Your task to perform on an android device: turn on improve location accuracy Image 0: 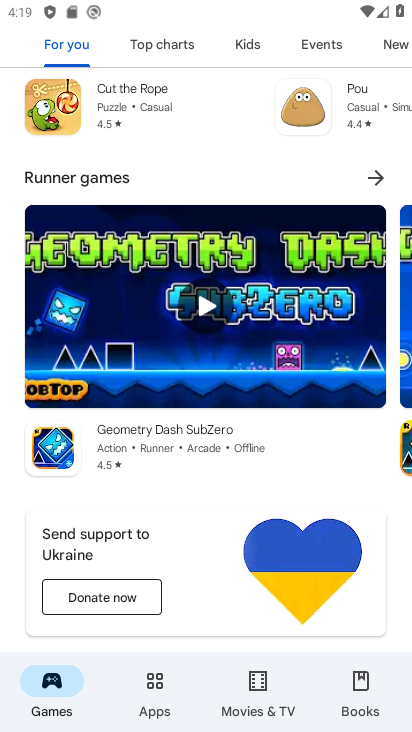
Step 0: press home button
Your task to perform on an android device: turn on improve location accuracy Image 1: 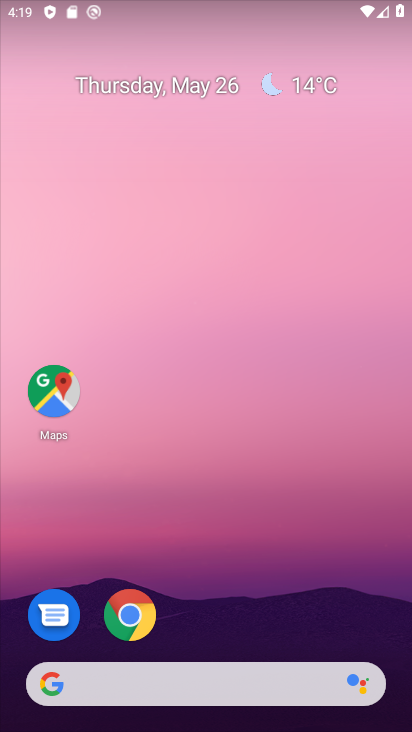
Step 1: drag from (324, 569) to (228, 131)
Your task to perform on an android device: turn on improve location accuracy Image 2: 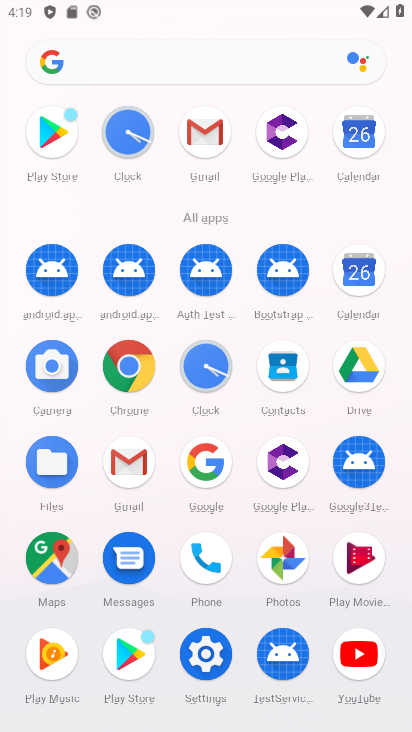
Step 2: click (207, 658)
Your task to perform on an android device: turn on improve location accuracy Image 3: 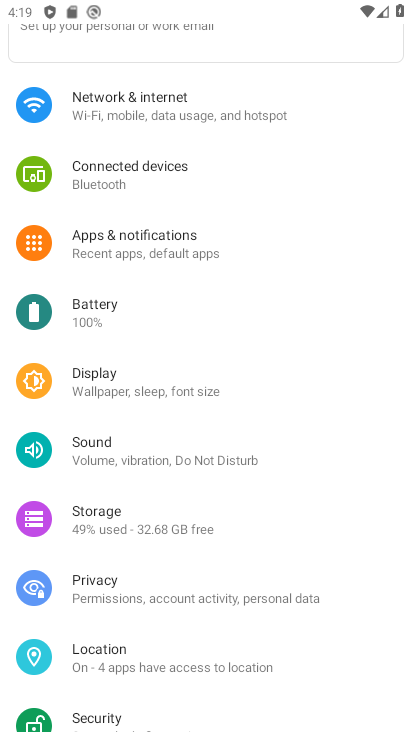
Step 3: drag from (191, 582) to (217, 258)
Your task to perform on an android device: turn on improve location accuracy Image 4: 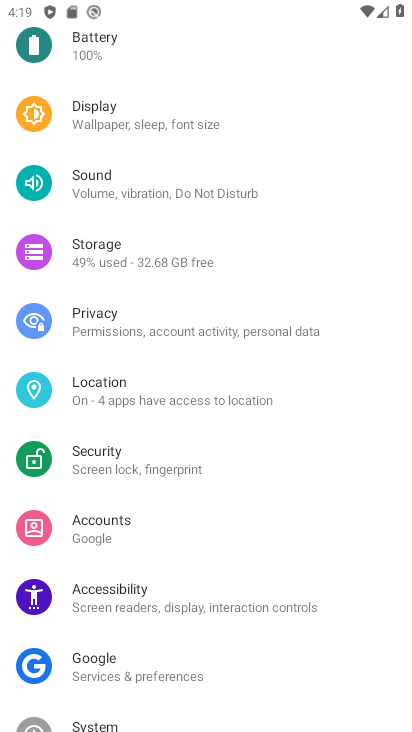
Step 4: click (134, 386)
Your task to perform on an android device: turn on improve location accuracy Image 5: 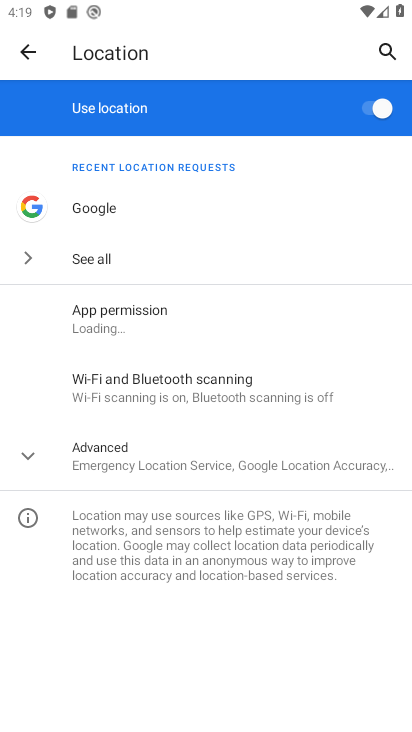
Step 5: click (129, 466)
Your task to perform on an android device: turn on improve location accuracy Image 6: 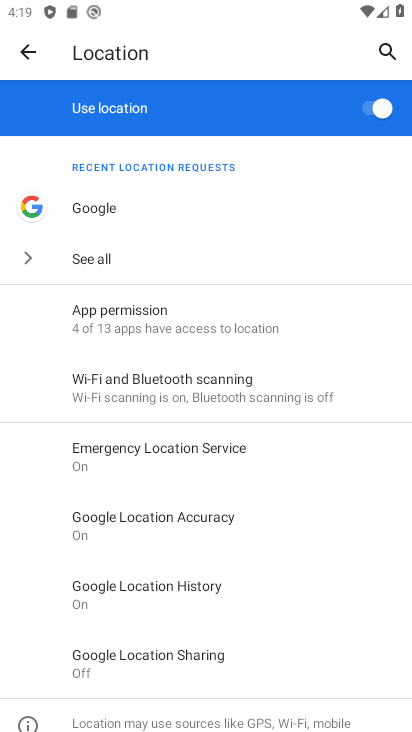
Step 6: click (191, 521)
Your task to perform on an android device: turn on improve location accuracy Image 7: 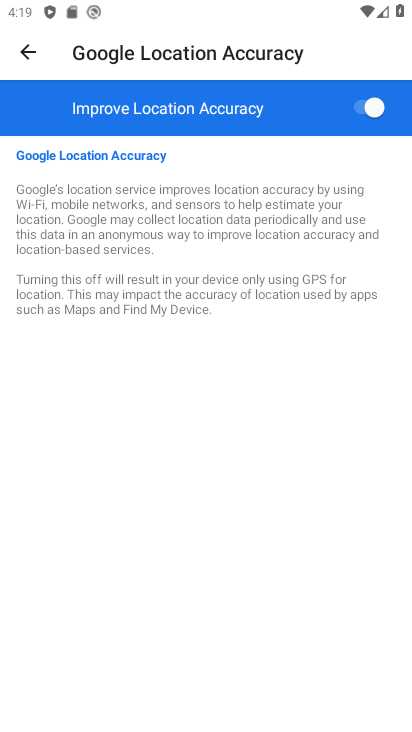
Step 7: task complete